Your task to perform on an android device: Open the web browser Image 0: 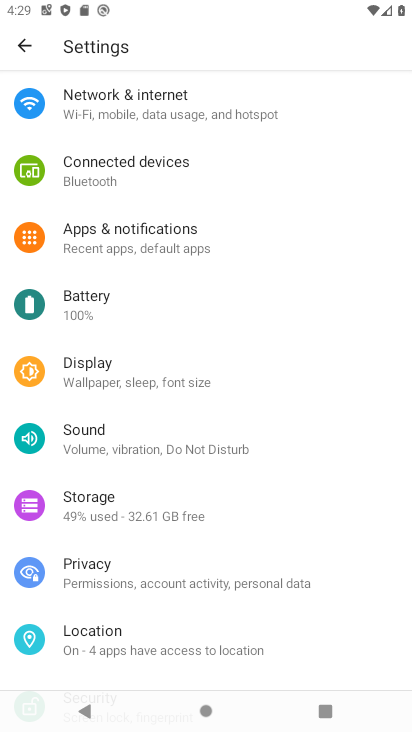
Step 0: press home button
Your task to perform on an android device: Open the web browser Image 1: 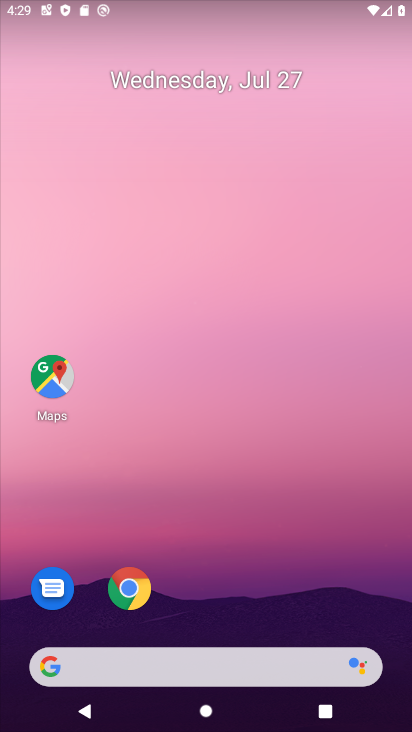
Step 1: drag from (250, 727) to (305, 183)
Your task to perform on an android device: Open the web browser Image 2: 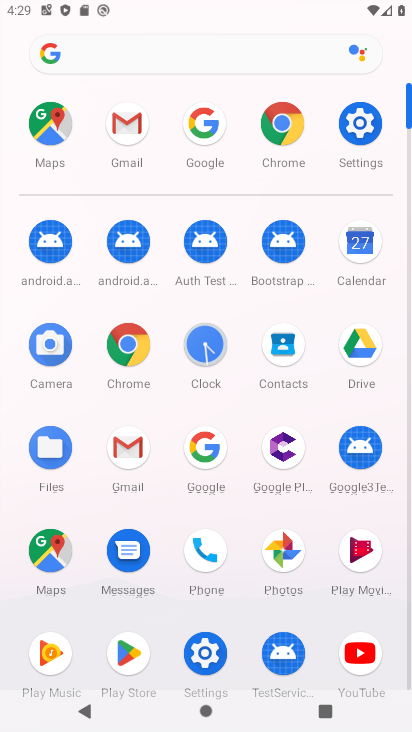
Step 2: click (131, 339)
Your task to perform on an android device: Open the web browser Image 3: 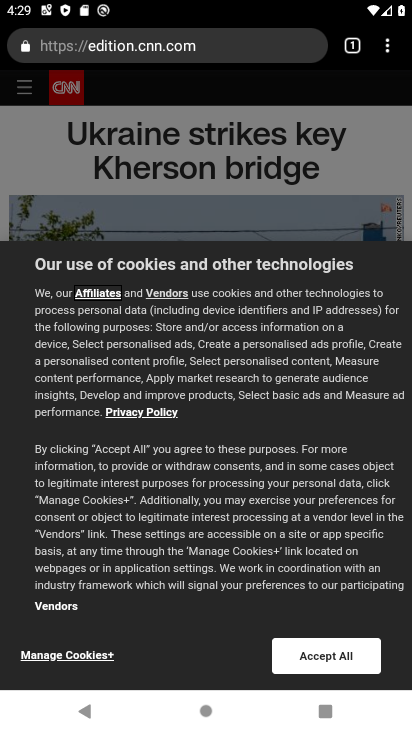
Step 3: task complete